Your task to perform on an android device: Open privacy settings Image 0: 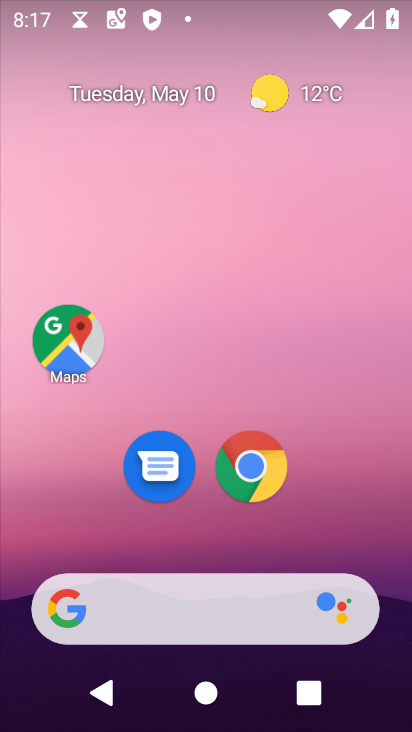
Step 0: drag from (213, 541) to (375, 22)
Your task to perform on an android device: Open privacy settings Image 1: 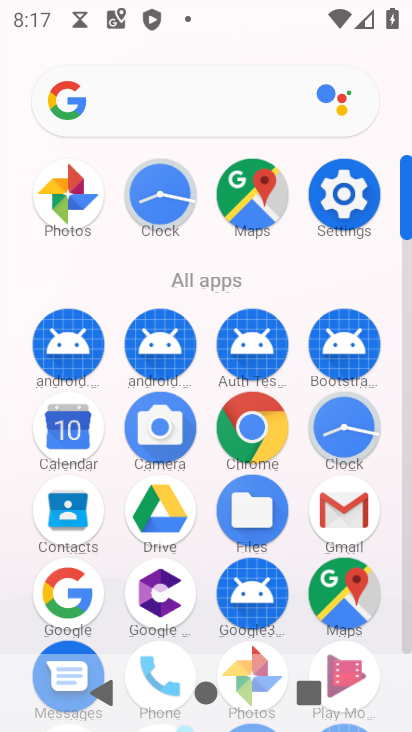
Step 1: click (337, 222)
Your task to perform on an android device: Open privacy settings Image 2: 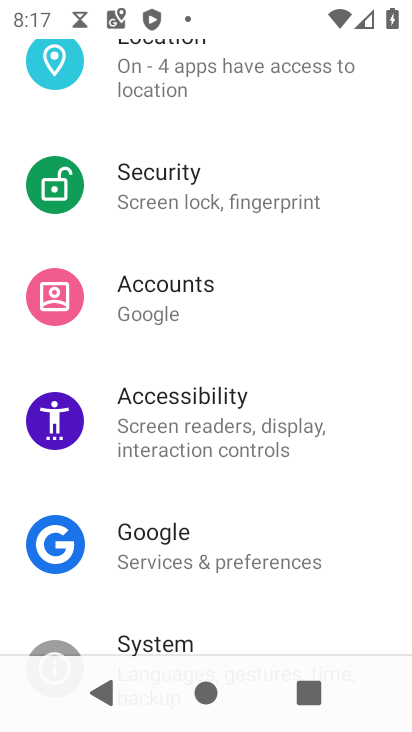
Step 2: drag from (206, 210) to (211, 618)
Your task to perform on an android device: Open privacy settings Image 3: 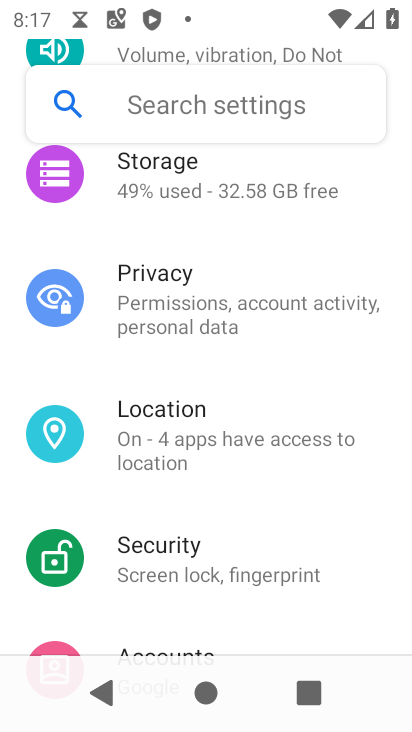
Step 3: click (184, 302)
Your task to perform on an android device: Open privacy settings Image 4: 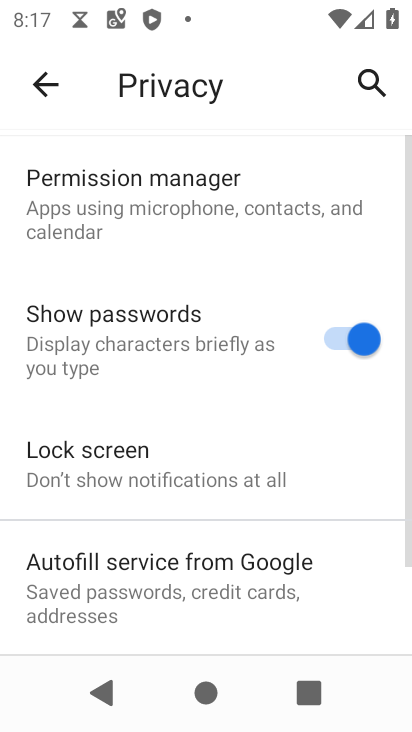
Step 4: task complete